Your task to perform on an android device: turn on data saver in the chrome app Image 0: 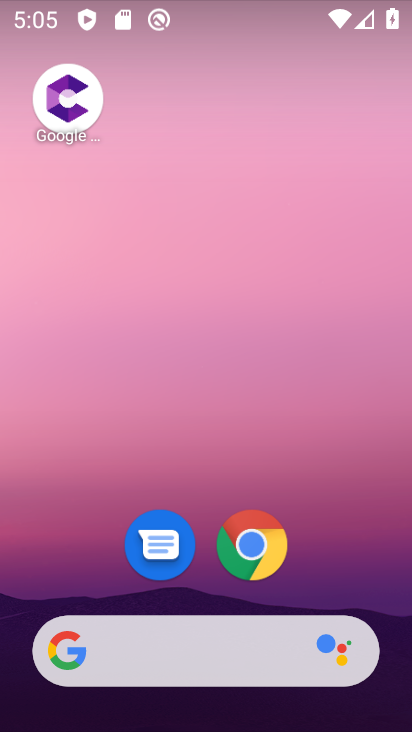
Step 0: press home button
Your task to perform on an android device: turn on data saver in the chrome app Image 1: 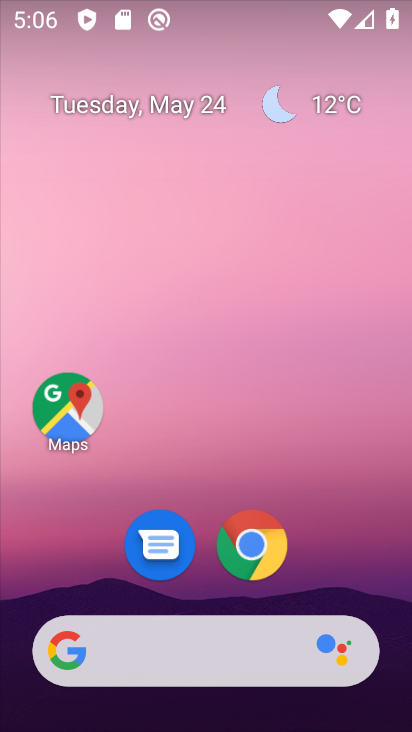
Step 1: click (264, 570)
Your task to perform on an android device: turn on data saver in the chrome app Image 2: 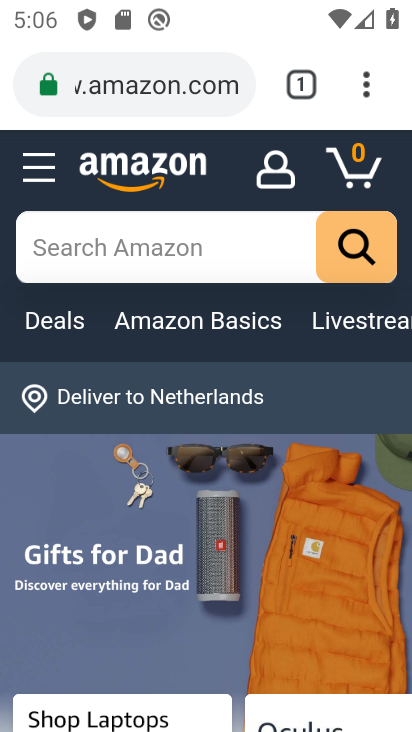
Step 2: click (368, 97)
Your task to perform on an android device: turn on data saver in the chrome app Image 3: 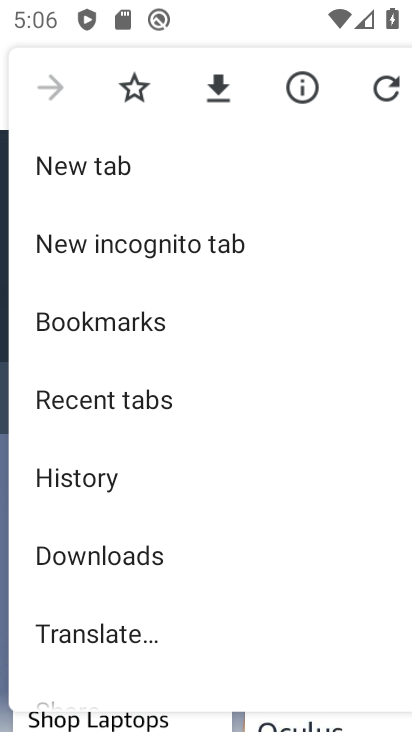
Step 3: drag from (87, 668) to (125, 208)
Your task to perform on an android device: turn on data saver in the chrome app Image 4: 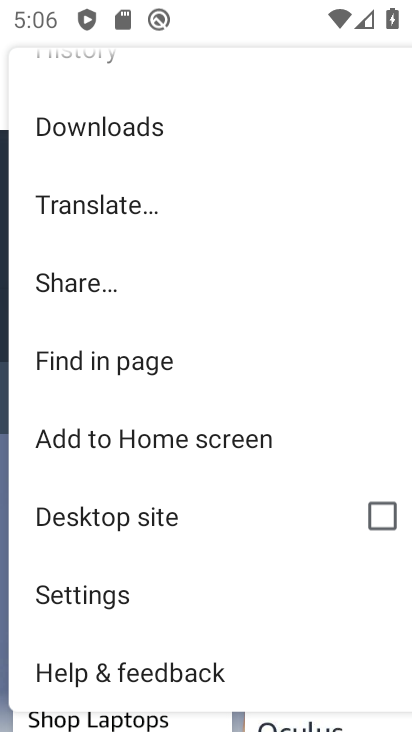
Step 4: click (99, 590)
Your task to perform on an android device: turn on data saver in the chrome app Image 5: 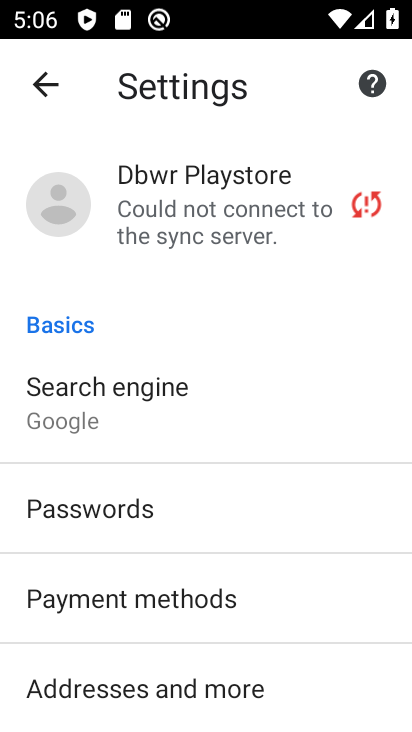
Step 5: click (193, 386)
Your task to perform on an android device: turn on data saver in the chrome app Image 6: 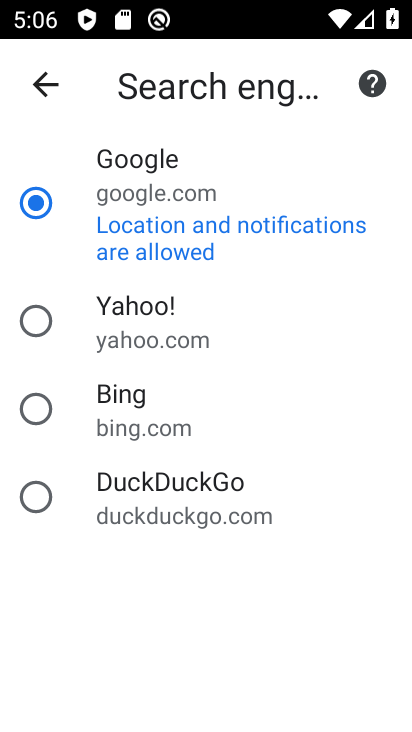
Step 6: click (56, 86)
Your task to perform on an android device: turn on data saver in the chrome app Image 7: 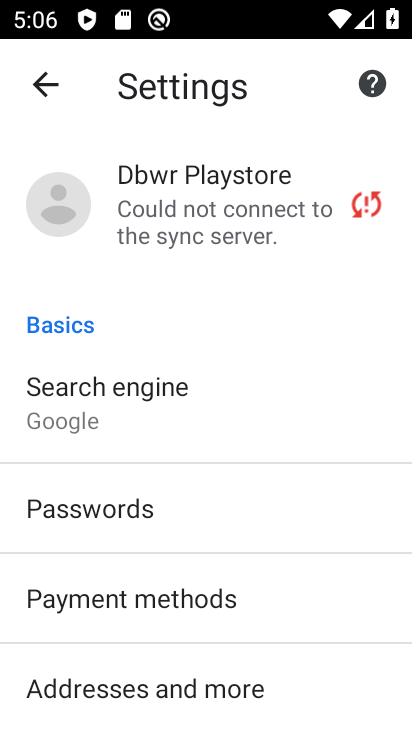
Step 7: drag from (221, 655) to (219, 333)
Your task to perform on an android device: turn on data saver in the chrome app Image 8: 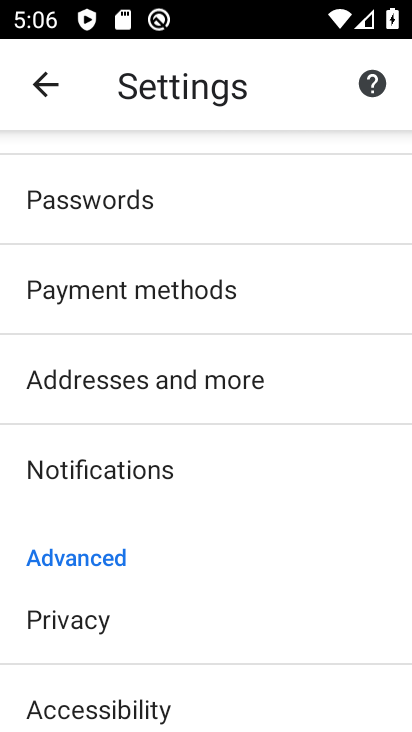
Step 8: drag from (156, 719) to (182, 404)
Your task to perform on an android device: turn on data saver in the chrome app Image 9: 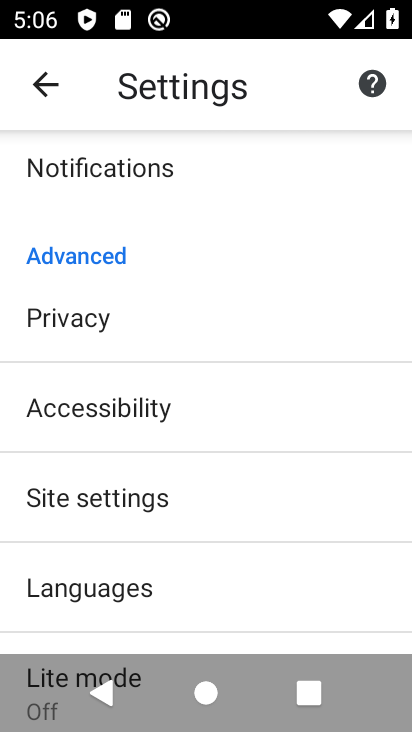
Step 9: drag from (115, 614) to (115, 379)
Your task to perform on an android device: turn on data saver in the chrome app Image 10: 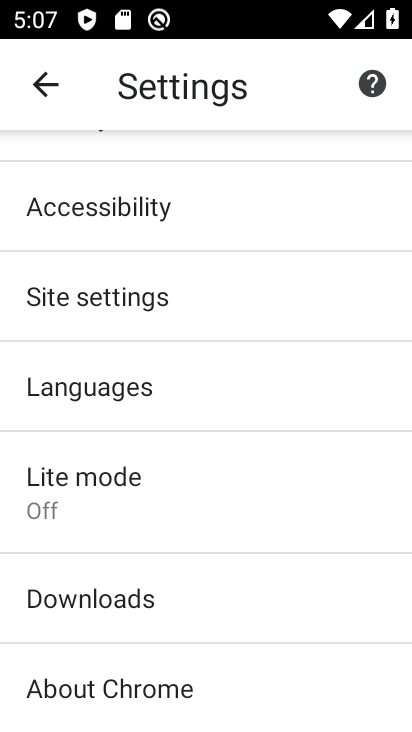
Step 10: click (89, 505)
Your task to perform on an android device: turn on data saver in the chrome app Image 11: 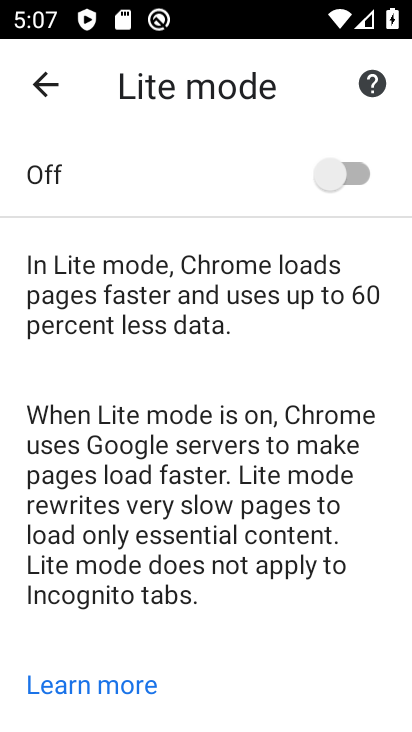
Step 11: click (345, 184)
Your task to perform on an android device: turn on data saver in the chrome app Image 12: 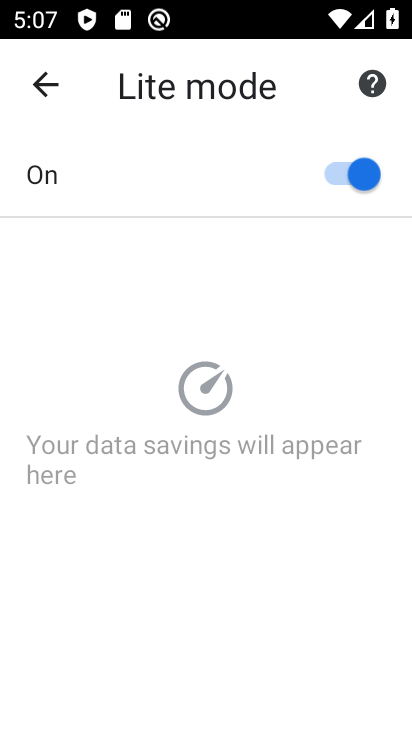
Step 12: task complete